Your task to perform on an android device: read, delete, or share a saved page in the chrome app Image 0: 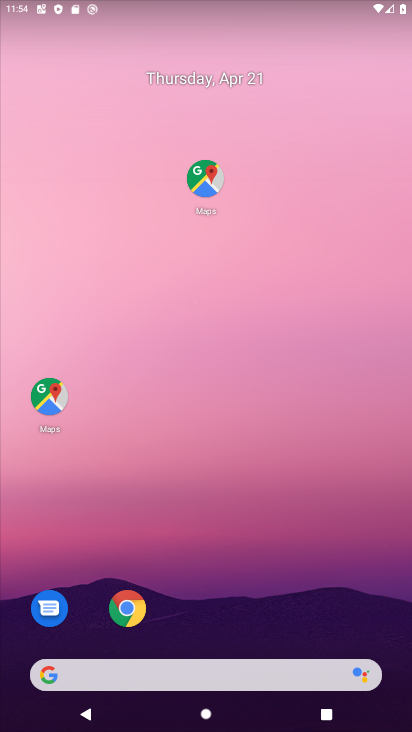
Step 0: drag from (266, 568) to (238, 105)
Your task to perform on an android device: read, delete, or share a saved page in the chrome app Image 1: 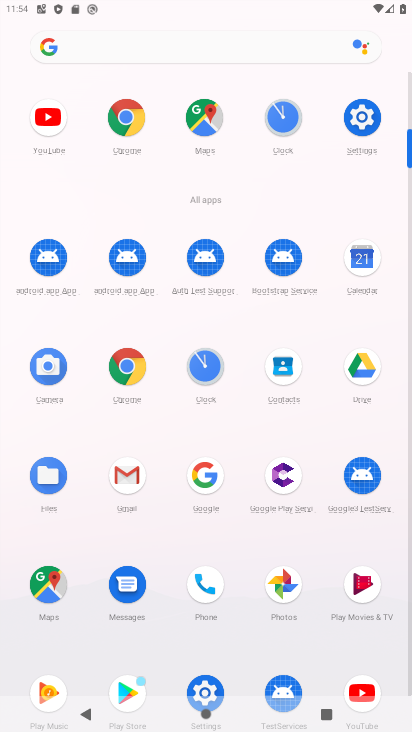
Step 1: click (117, 128)
Your task to perform on an android device: read, delete, or share a saved page in the chrome app Image 2: 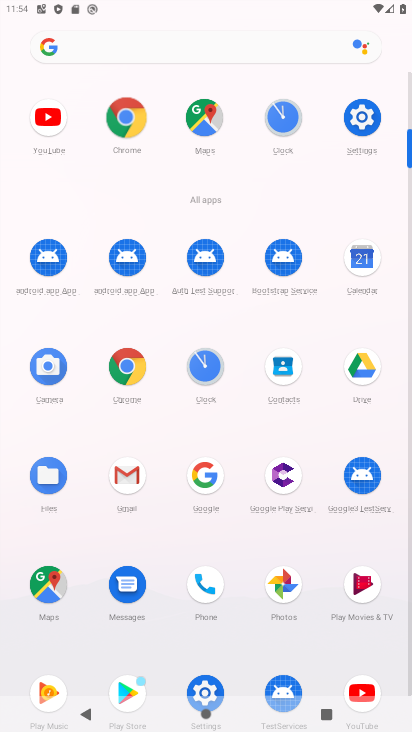
Step 2: click (123, 123)
Your task to perform on an android device: read, delete, or share a saved page in the chrome app Image 3: 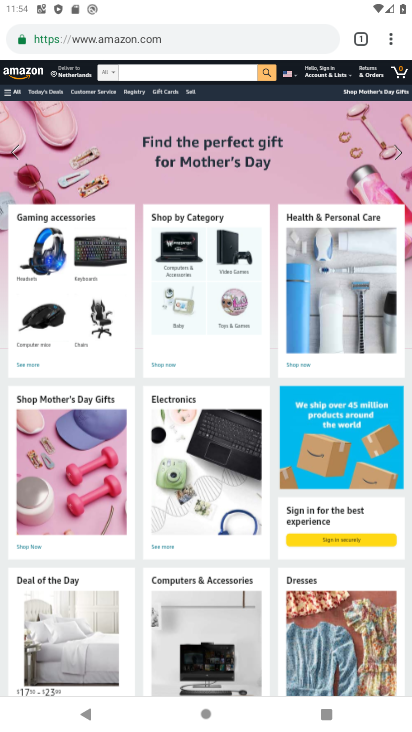
Step 3: drag from (386, 31) to (251, 295)
Your task to perform on an android device: read, delete, or share a saved page in the chrome app Image 4: 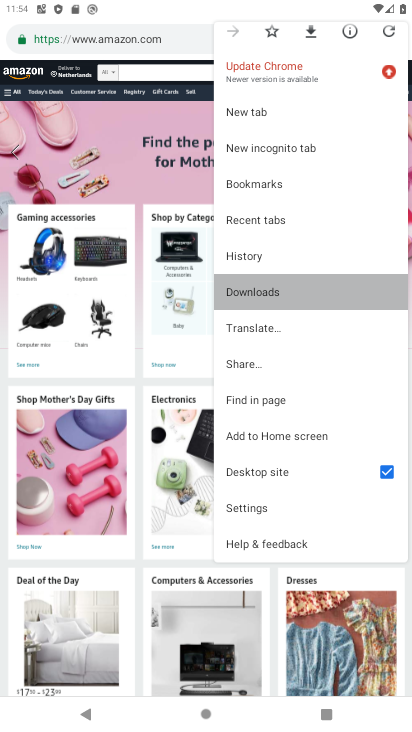
Step 4: click (251, 294)
Your task to perform on an android device: read, delete, or share a saved page in the chrome app Image 5: 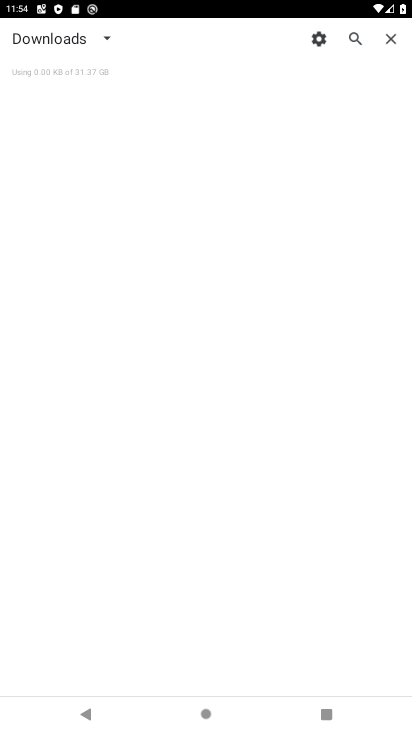
Step 5: click (99, 36)
Your task to perform on an android device: read, delete, or share a saved page in the chrome app Image 6: 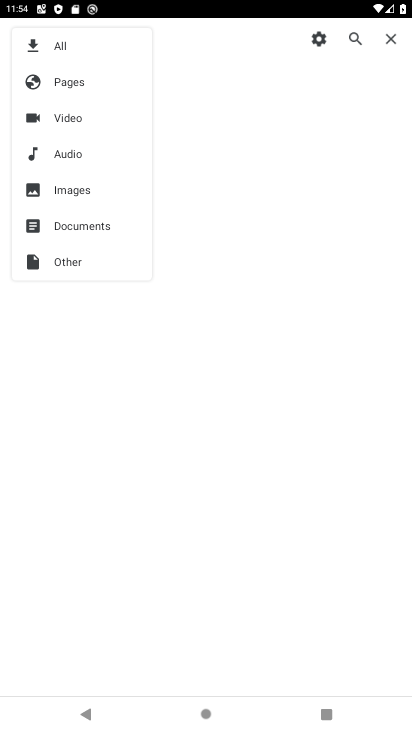
Step 6: click (99, 37)
Your task to perform on an android device: read, delete, or share a saved page in the chrome app Image 7: 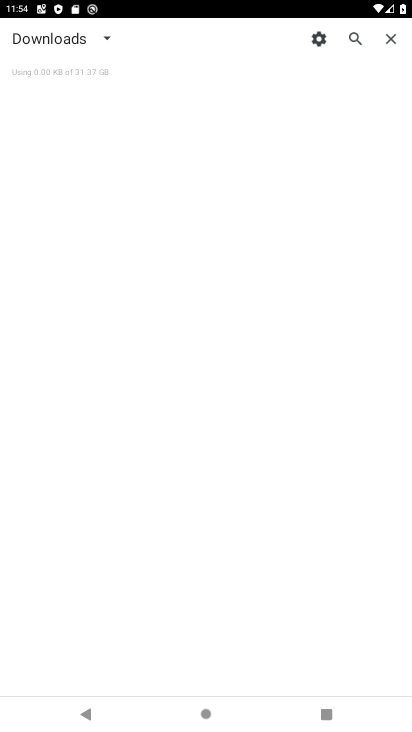
Step 7: task complete